Your task to perform on an android device: uninstall "AliExpress" Image 0: 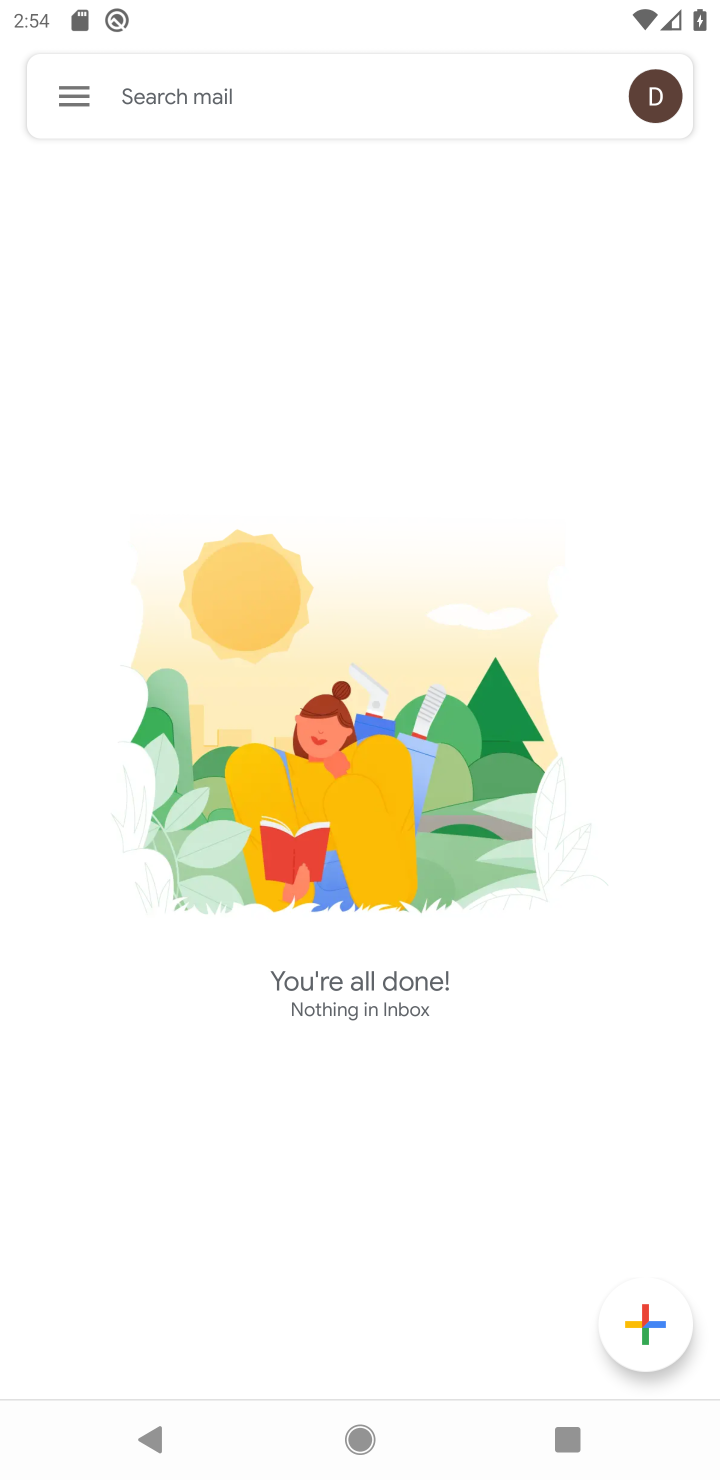
Step 0: press back button
Your task to perform on an android device: uninstall "AliExpress" Image 1: 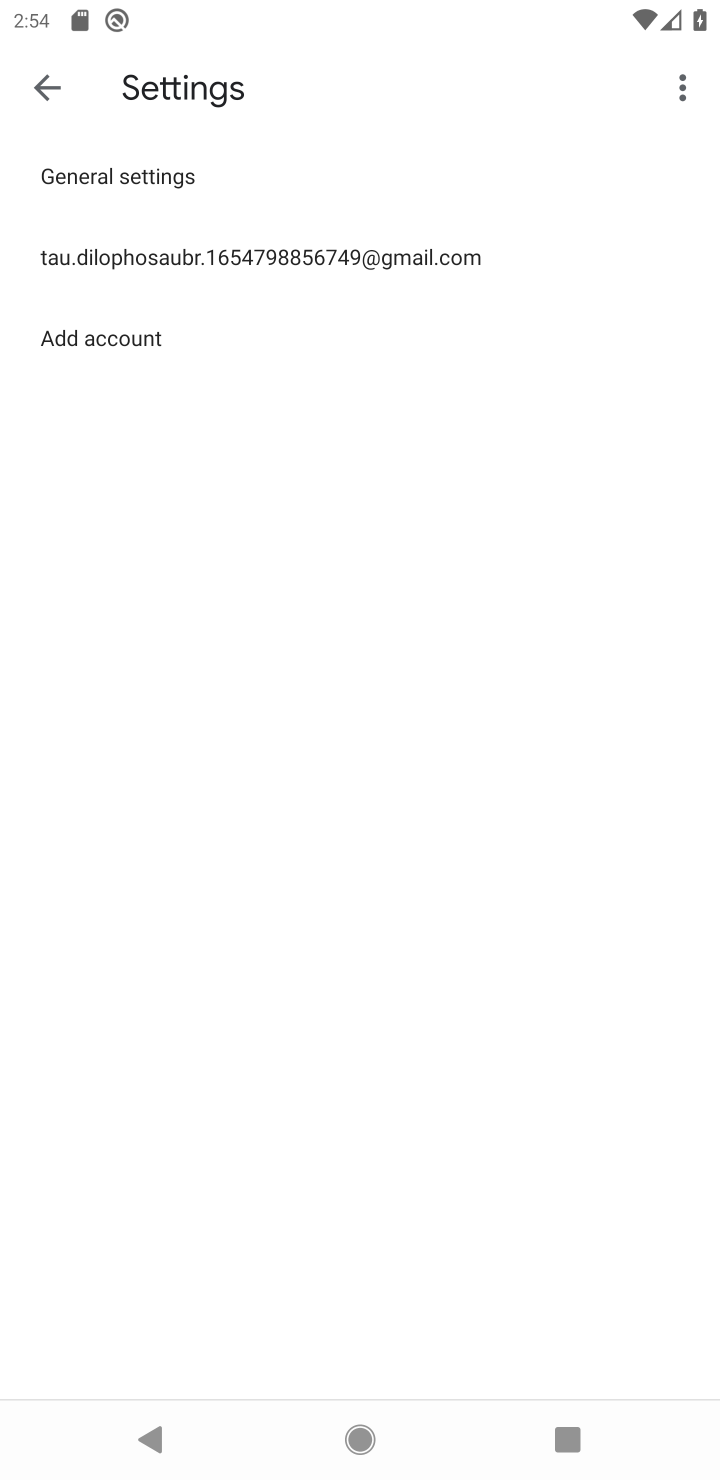
Step 1: press home button
Your task to perform on an android device: uninstall "AliExpress" Image 2: 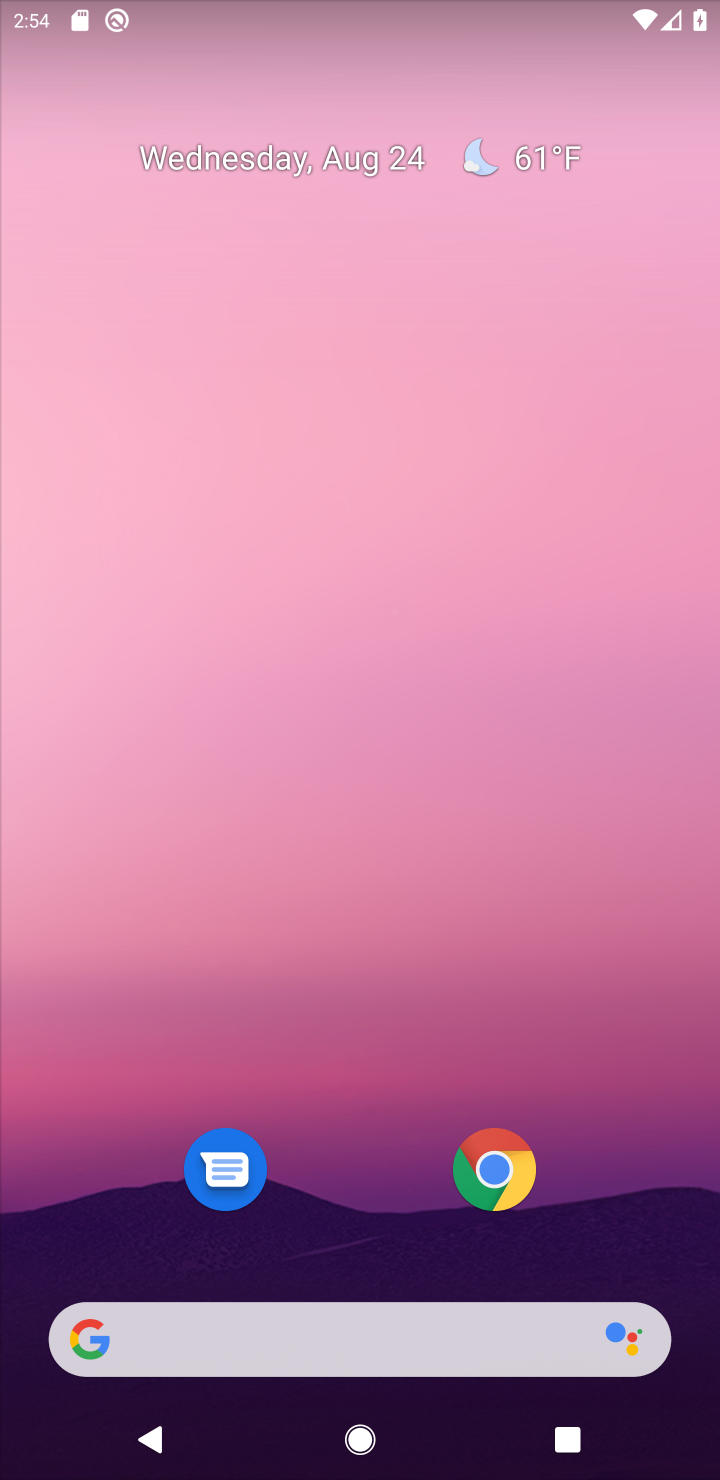
Step 2: drag from (399, 1286) to (326, 278)
Your task to perform on an android device: uninstall "AliExpress" Image 3: 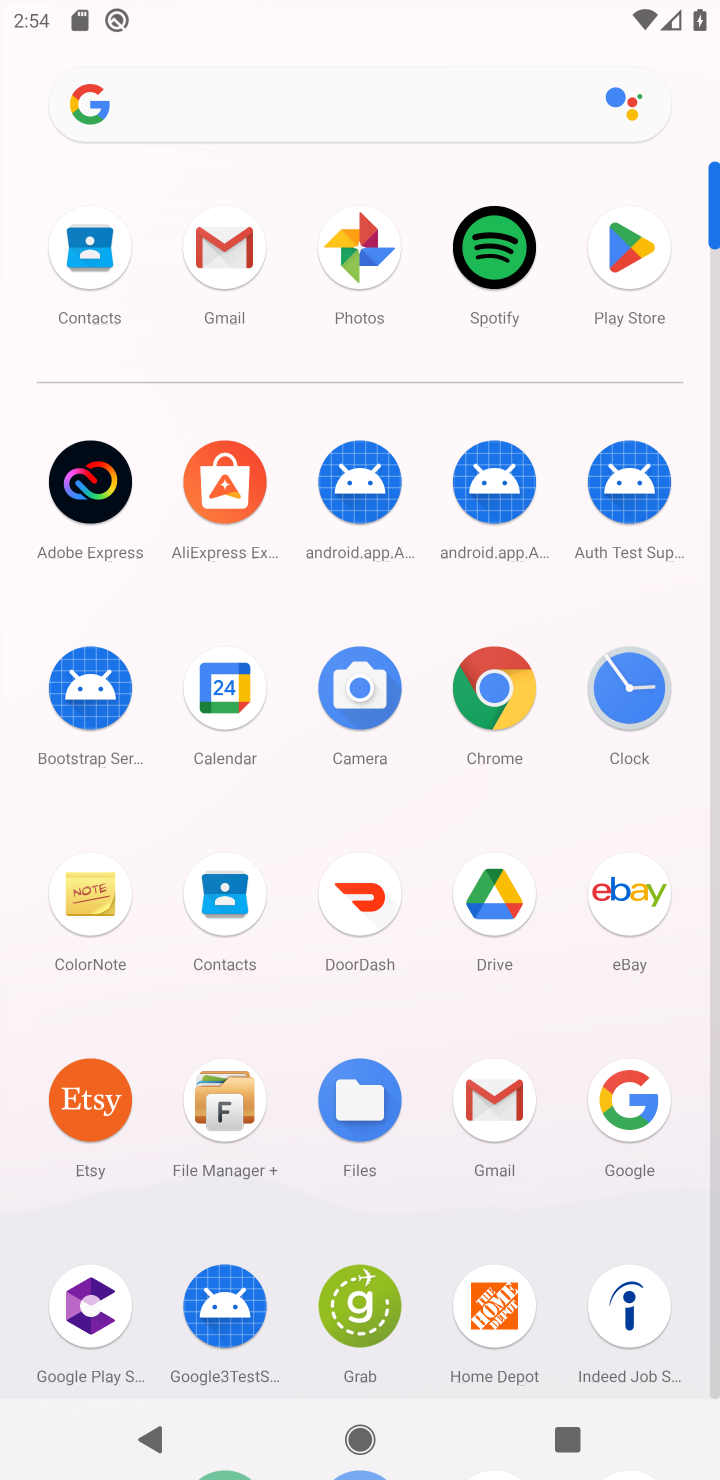
Step 3: click (610, 256)
Your task to perform on an android device: uninstall "AliExpress" Image 4: 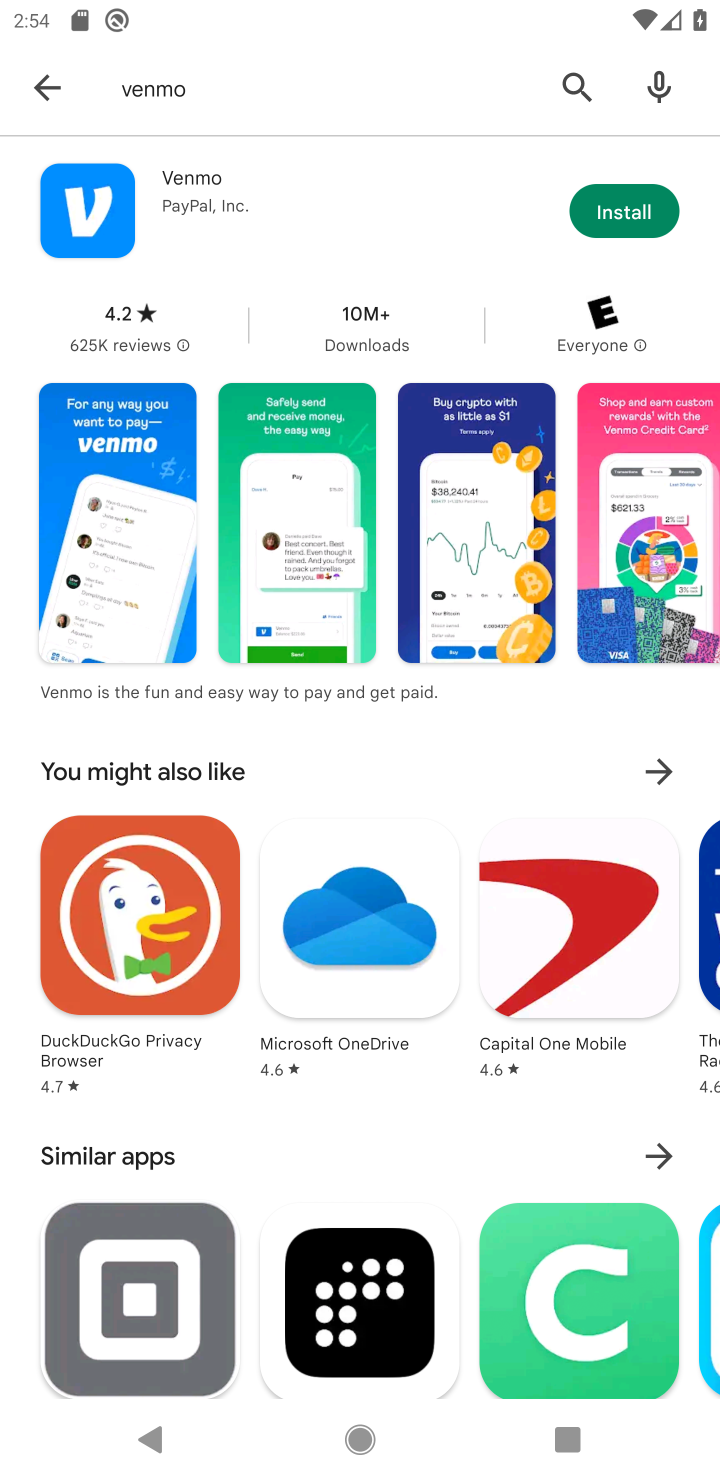
Step 4: click (48, 94)
Your task to perform on an android device: uninstall "AliExpress" Image 5: 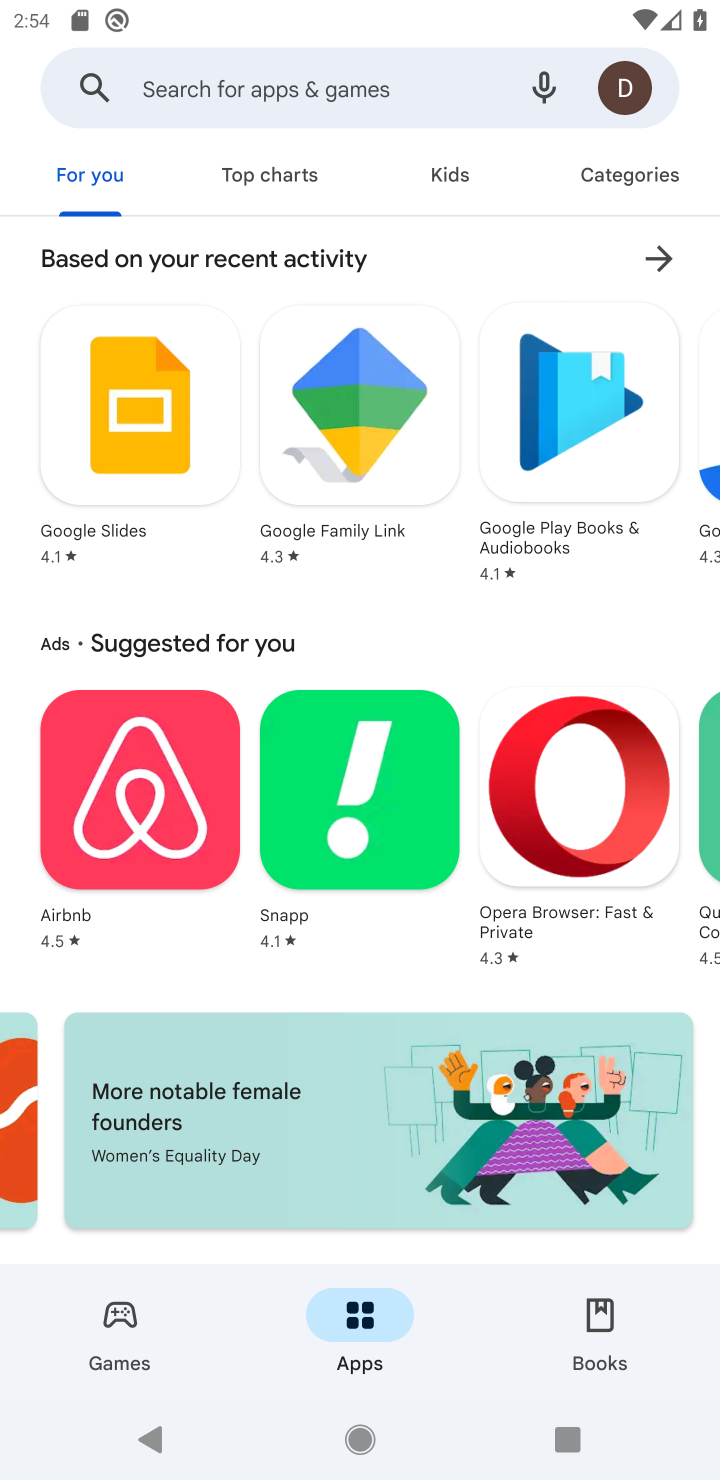
Step 5: click (291, 74)
Your task to perform on an android device: uninstall "AliExpress" Image 6: 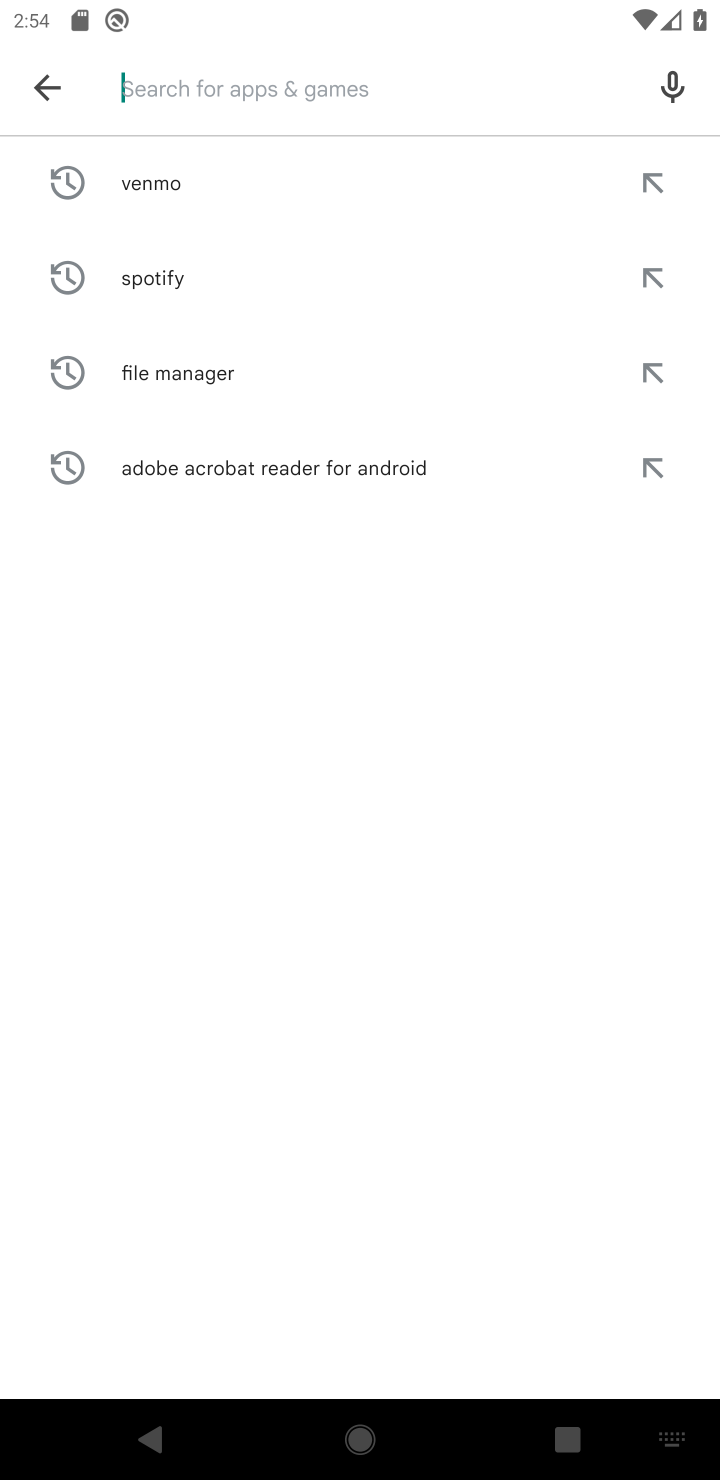
Step 6: type "AliExpress"
Your task to perform on an android device: uninstall "AliExpress" Image 7: 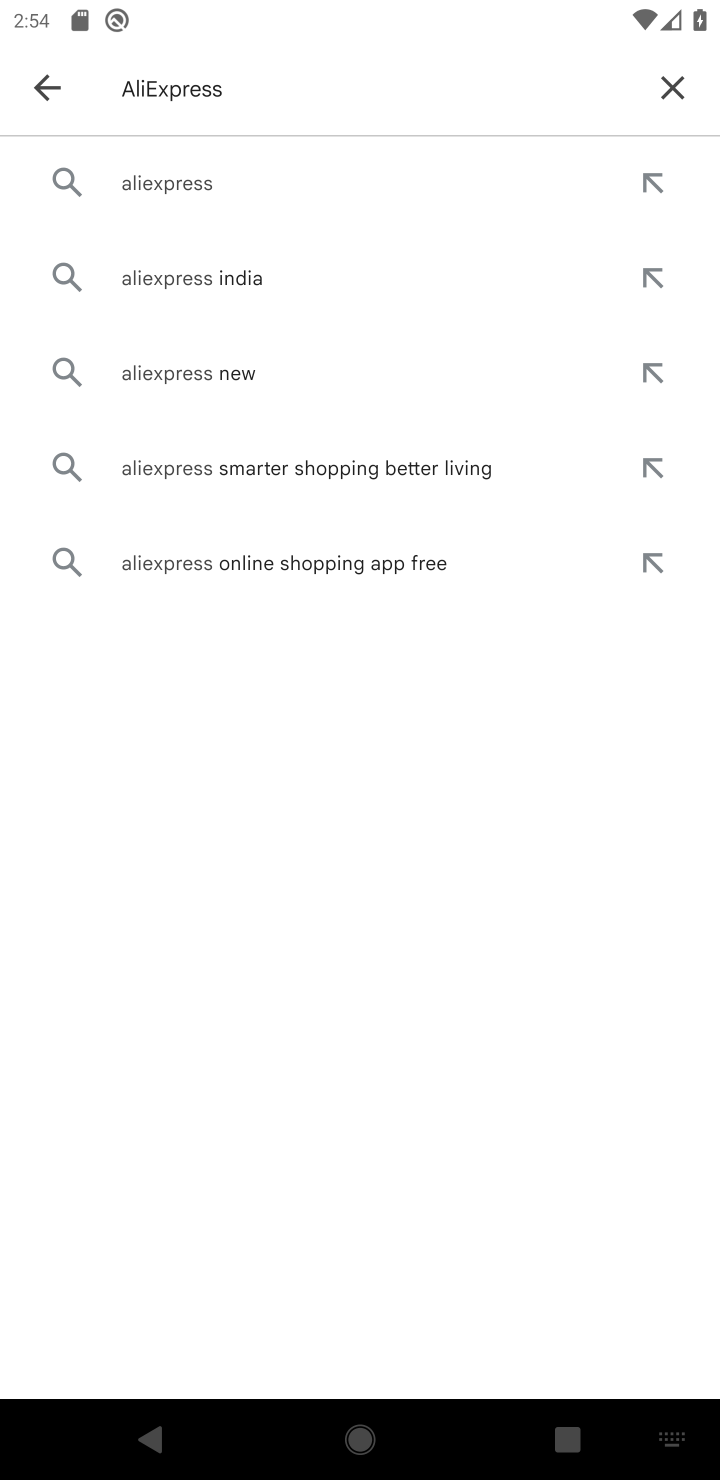
Step 7: click (190, 192)
Your task to perform on an android device: uninstall "AliExpress" Image 8: 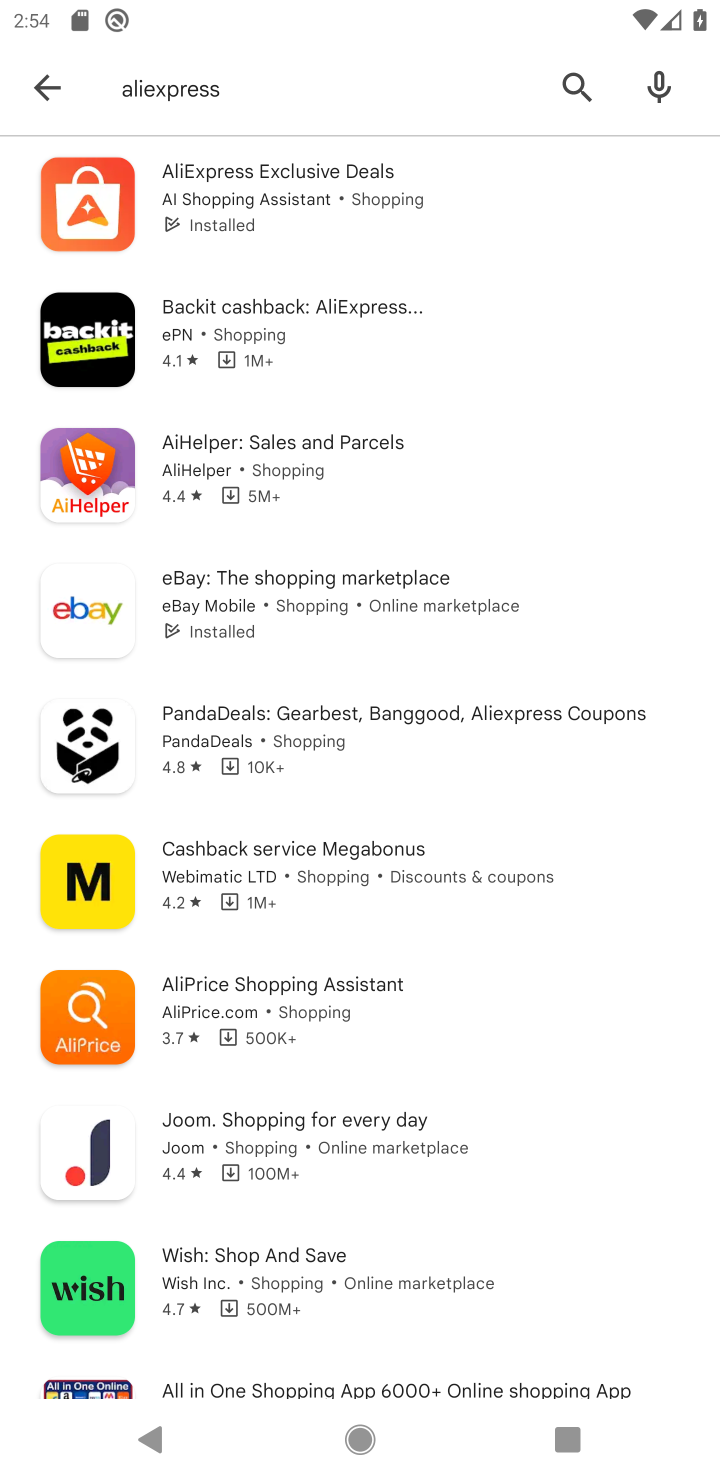
Step 8: click (190, 192)
Your task to perform on an android device: uninstall "AliExpress" Image 9: 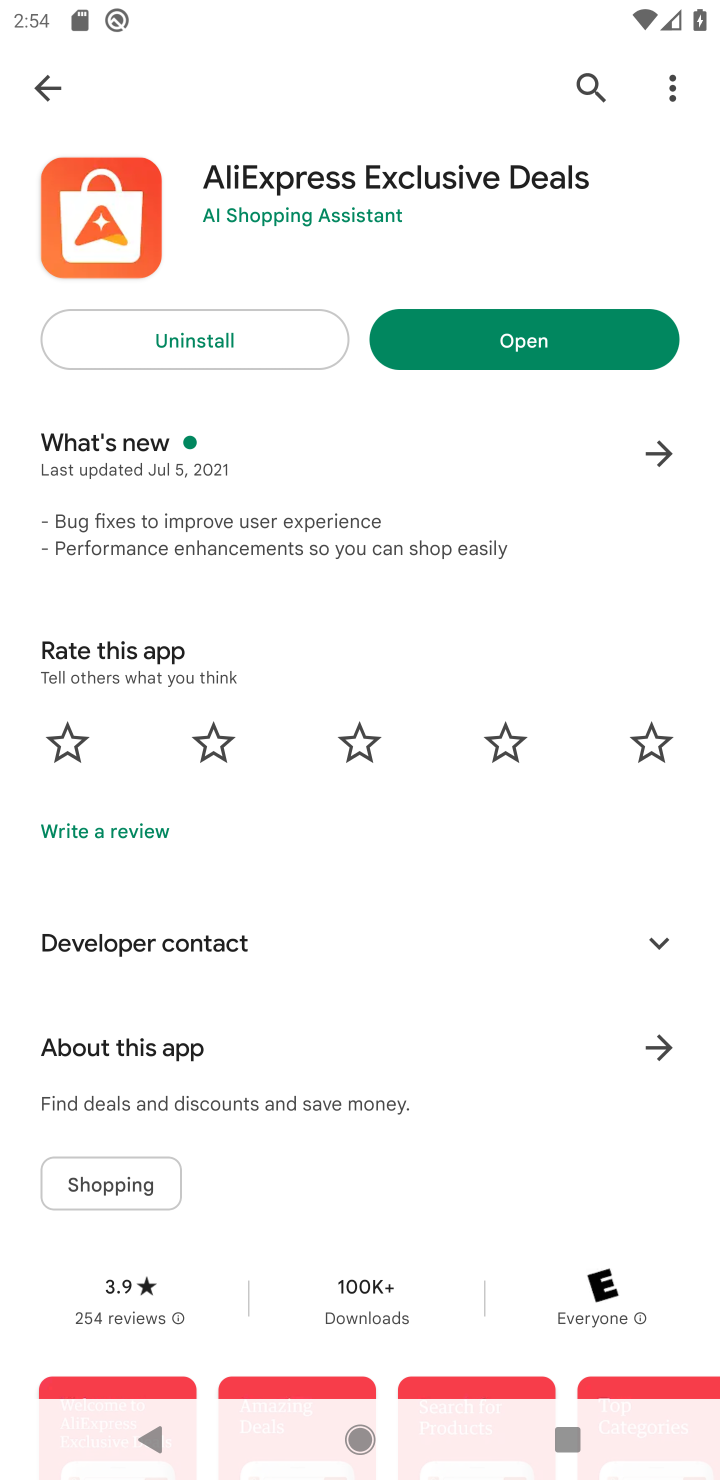
Step 9: click (263, 347)
Your task to perform on an android device: uninstall "AliExpress" Image 10: 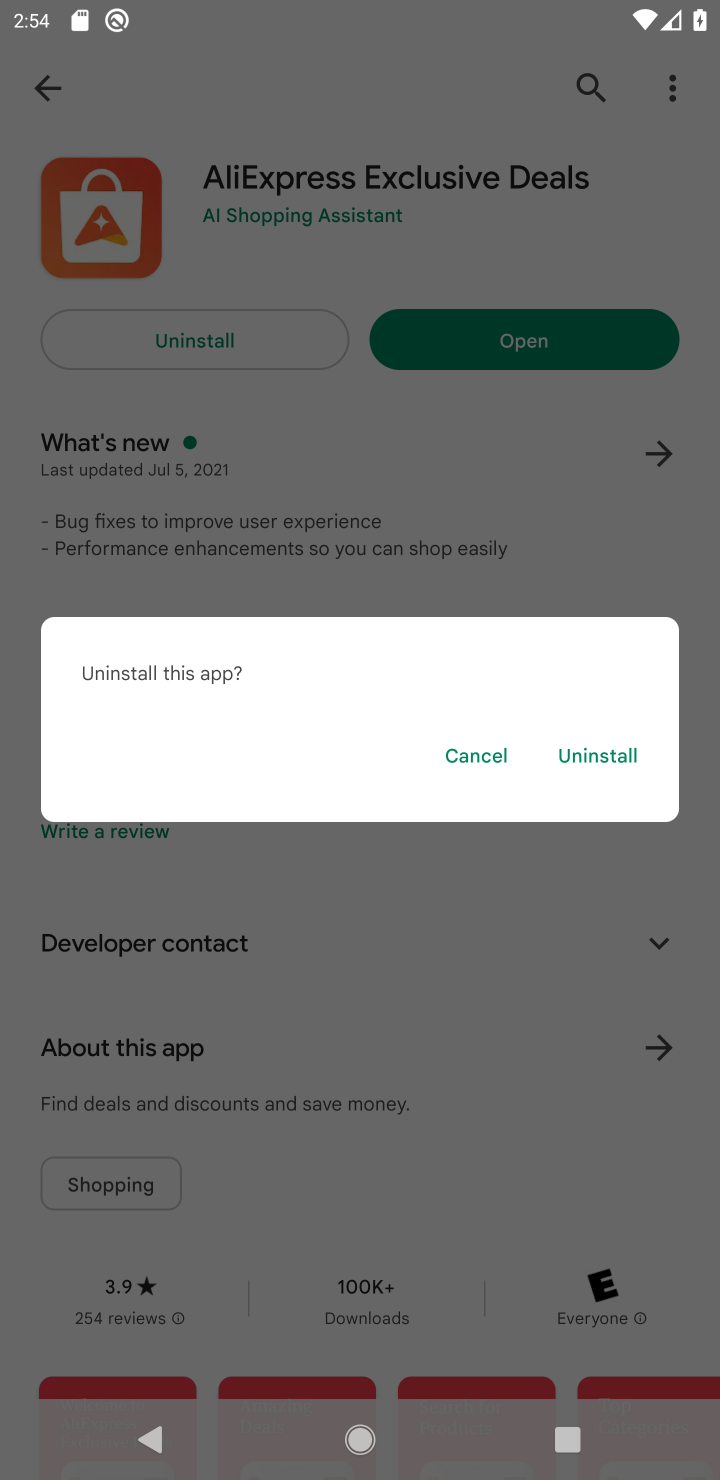
Step 10: click (587, 744)
Your task to perform on an android device: uninstall "AliExpress" Image 11: 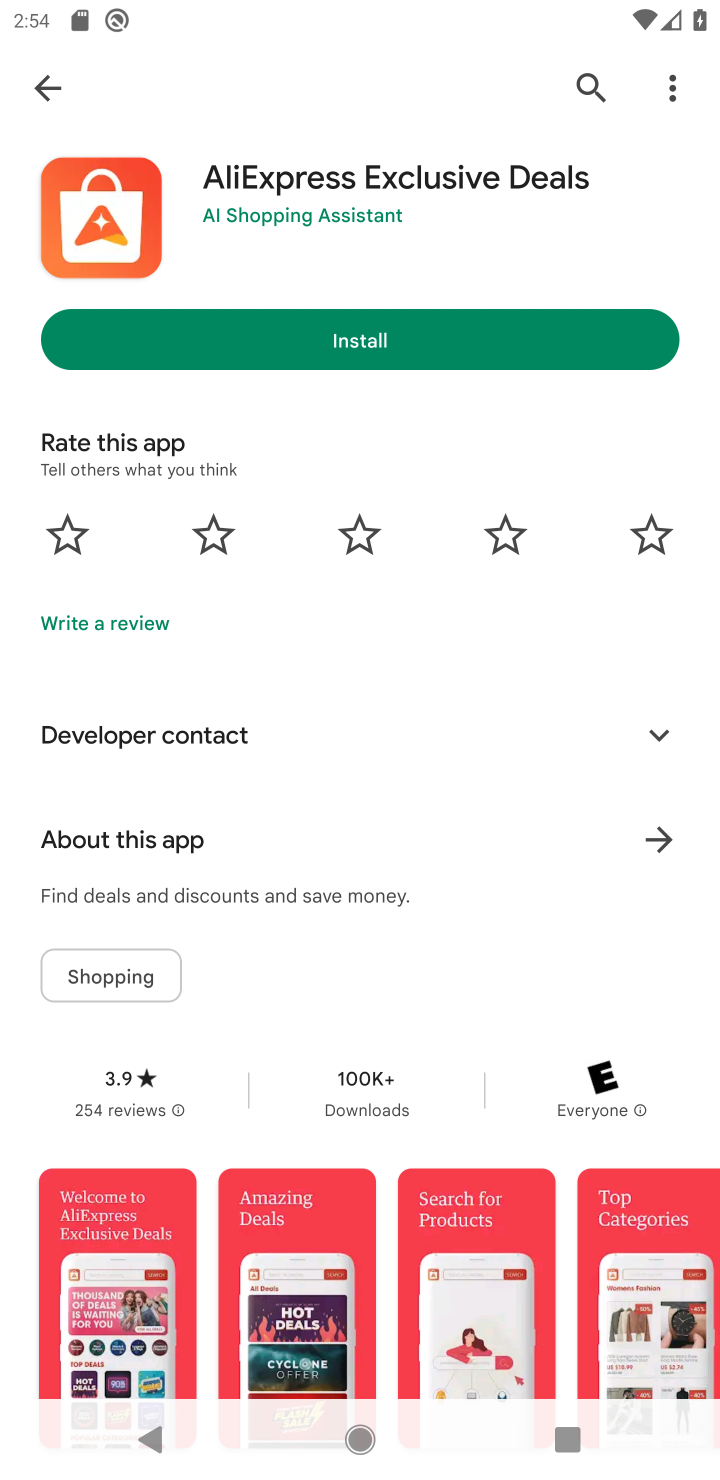
Step 11: task complete